Your task to perform on an android device: turn off translation in the chrome app Image 0: 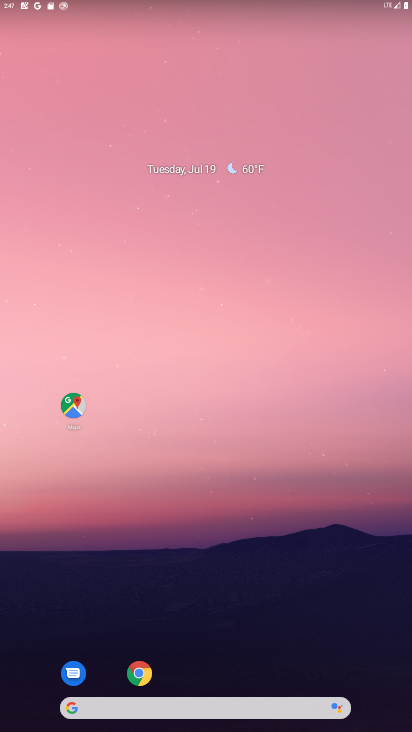
Step 0: click (141, 673)
Your task to perform on an android device: turn off translation in the chrome app Image 1: 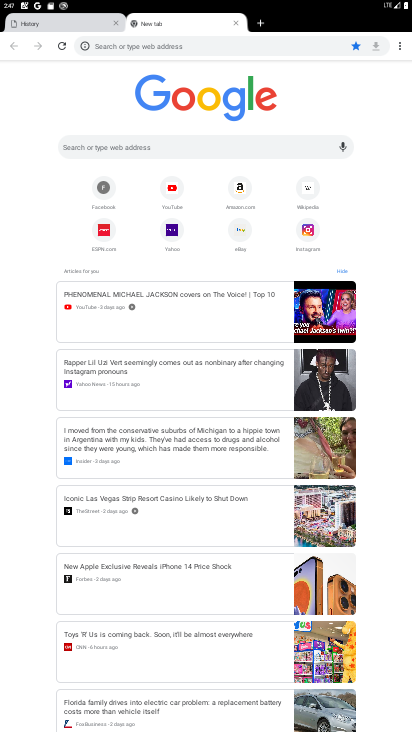
Step 1: click (397, 42)
Your task to perform on an android device: turn off translation in the chrome app Image 2: 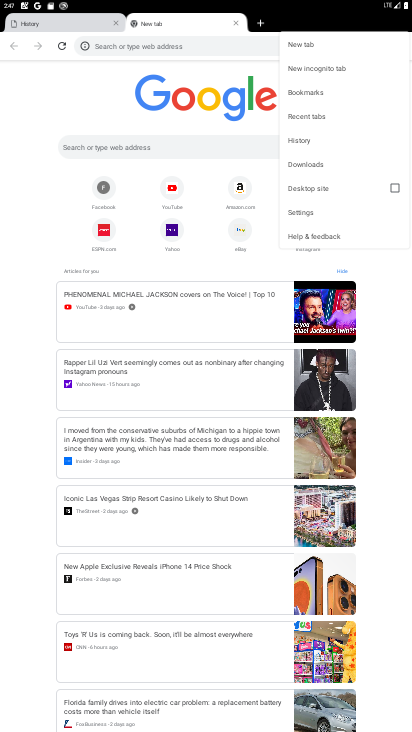
Step 2: click (324, 216)
Your task to perform on an android device: turn off translation in the chrome app Image 3: 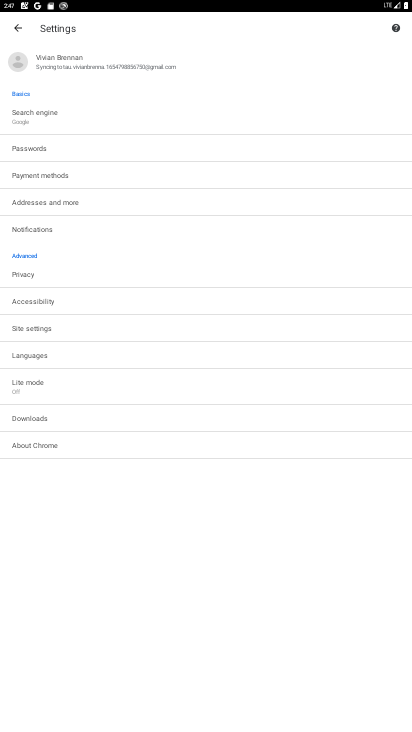
Step 3: click (67, 352)
Your task to perform on an android device: turn off translation in the chrome app Image 4: 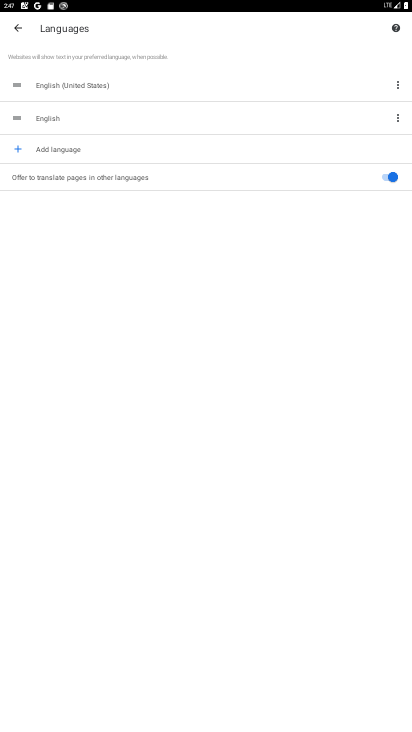
Step 4: click (394, 175)
Your task to perform on an android device: turn off translation in the chrome app Image 5: 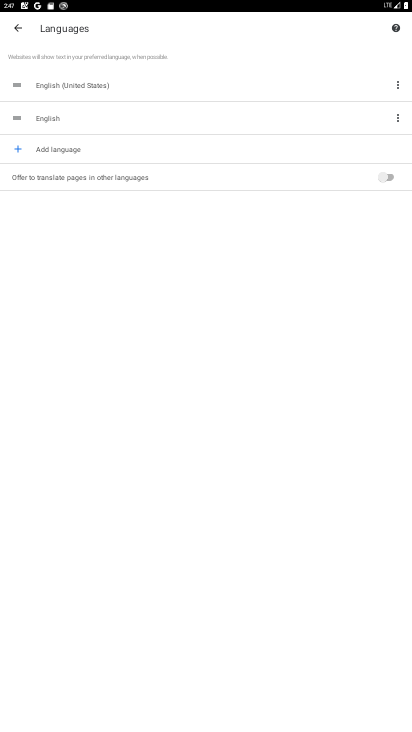
Step 5: task complete